Your task to perform on an android device: Is it going to rain today? Image 0: 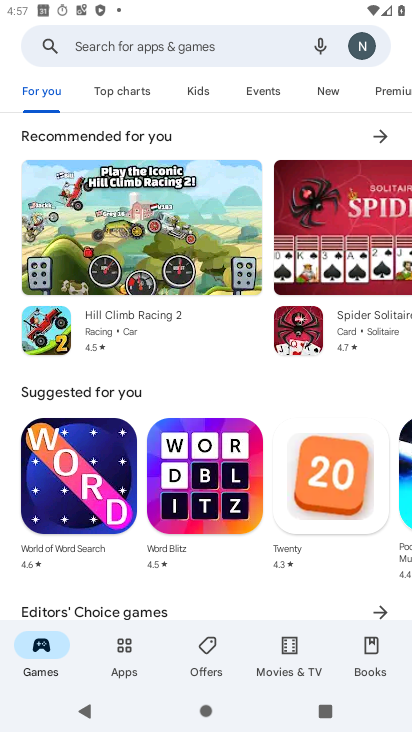
Step 0: press home button
Your task to perform on an android device: Is it going to rain today? Image 1: 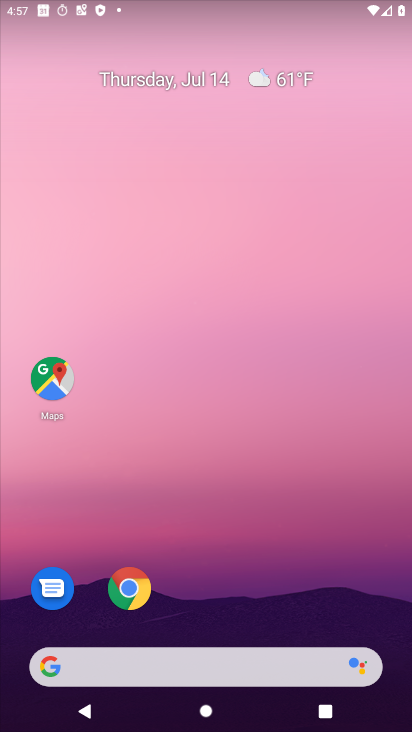
Step 1: drag from (193, 669) to (350, 103)
Your task to perform on an android device: Is it going to rain today? Image 2: 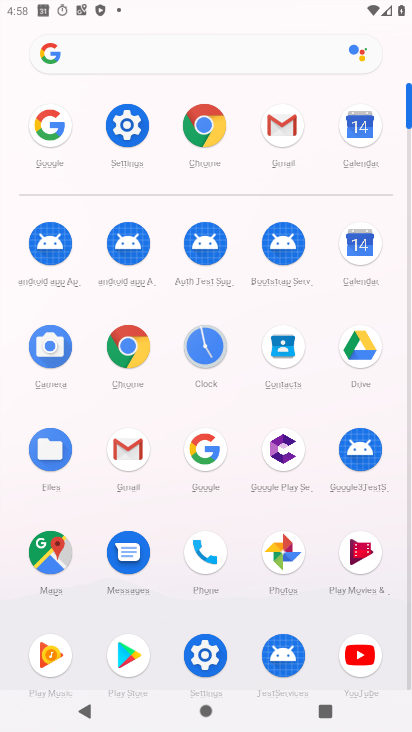
Step 2: click (199, 448)
Your task to perform on an android device: Is it going to rain today? Image 3: 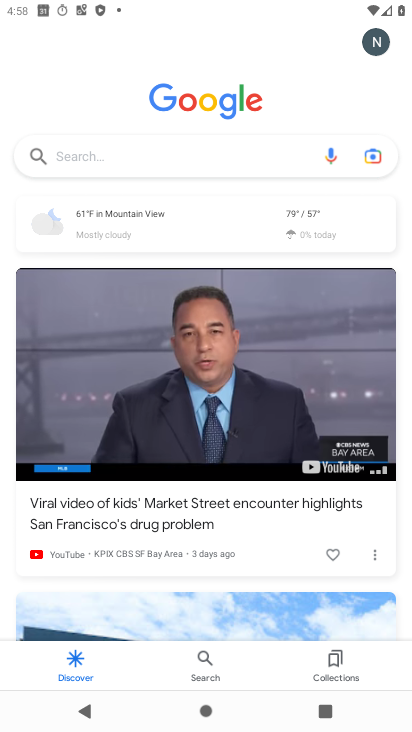
Step 3: click (324, 208)
Your task to perform on an android device: Is it going to rain today? Image 4: 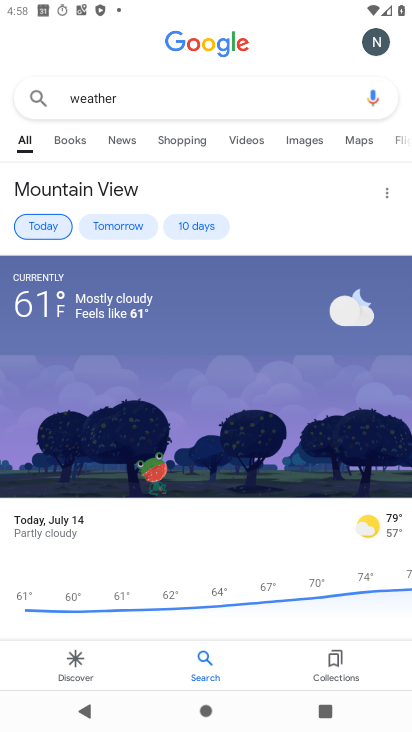
Step 4: task complete